Your task to perform on an android device: Go to notification settings Image 0: 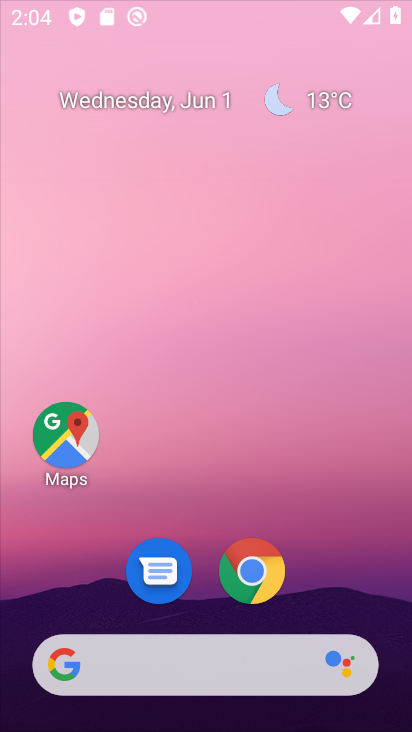
Step 0: click (176, 40)
Your task to perform on an android device: Go to notification settings Image 1: 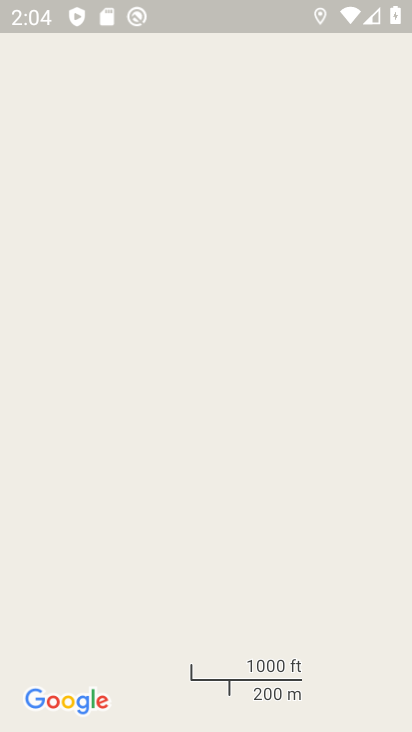
Step 1: press home button
Your task to perform on an android device: Go to notification settings Image 2: 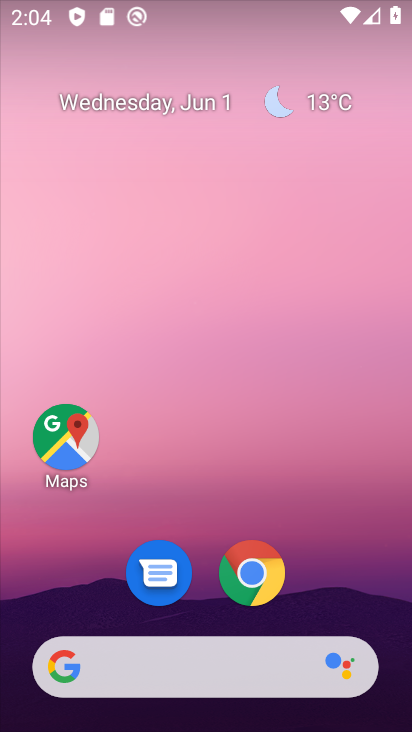
Step 2: drag from (209, 628) to (132, 48)
Your task to perform on an android device: Go to notification settings Image 3: 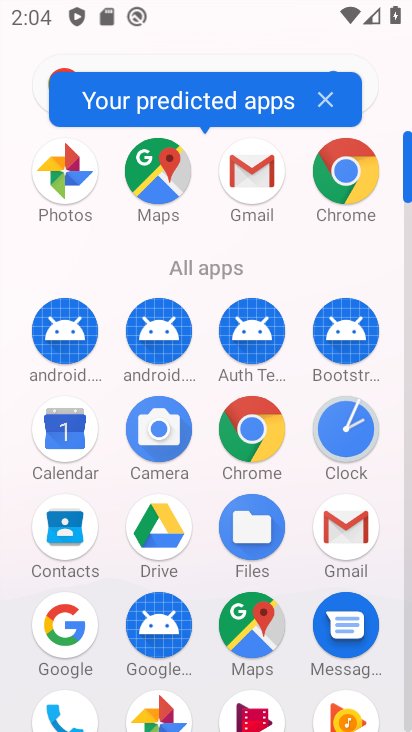
Step 3: drag from (105, 606) to (121, 119)
Your task to perform on an android device: Go to notification settings Image 4: 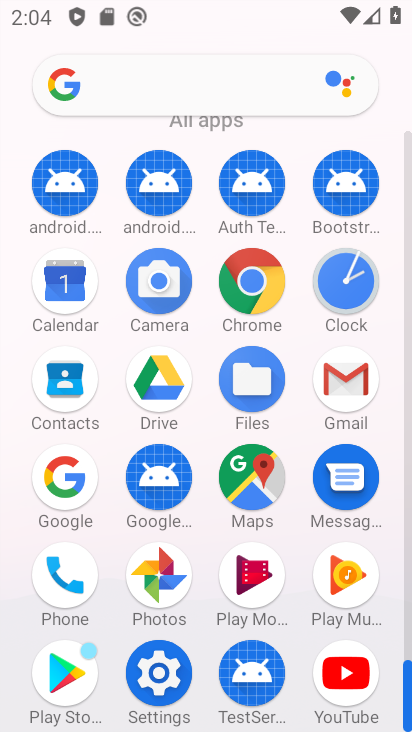
Step 4: click (163, 683)
Your task to perform on an android device: Go to notification settings Image 5: 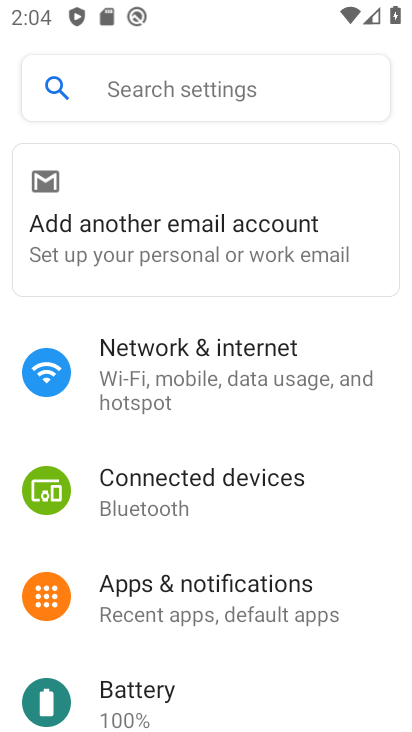
Step 5: click (196, 616)
Your task to perform on an android device: Go to notification settings Image 6: 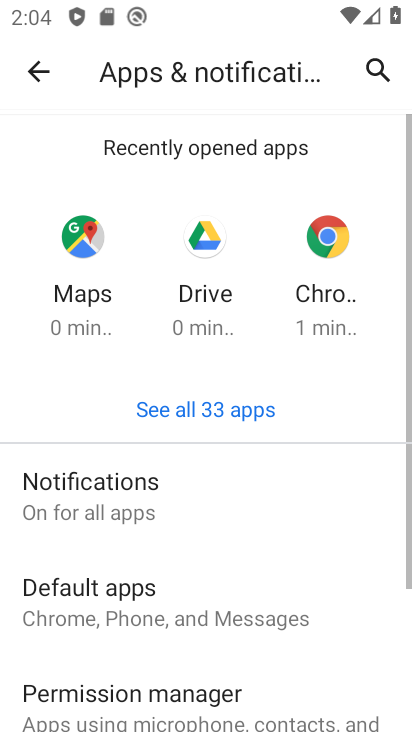
Step 6: click (70, 496)
Your task to perform on an android device: Go to notification settings Image 7: 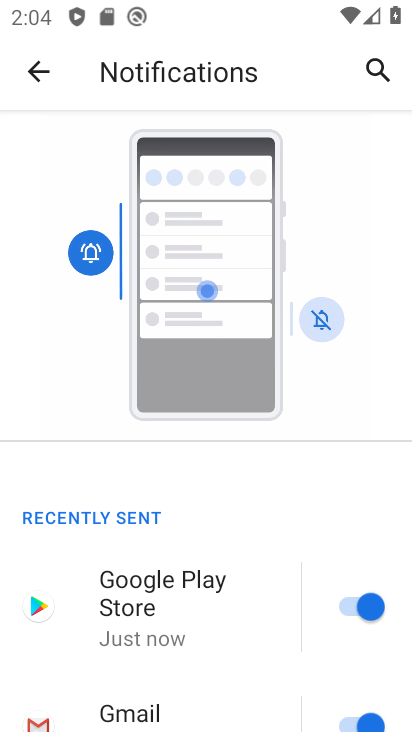
Step 7: task complete